Your task to perform on an android device: Open internet settings Image 0: 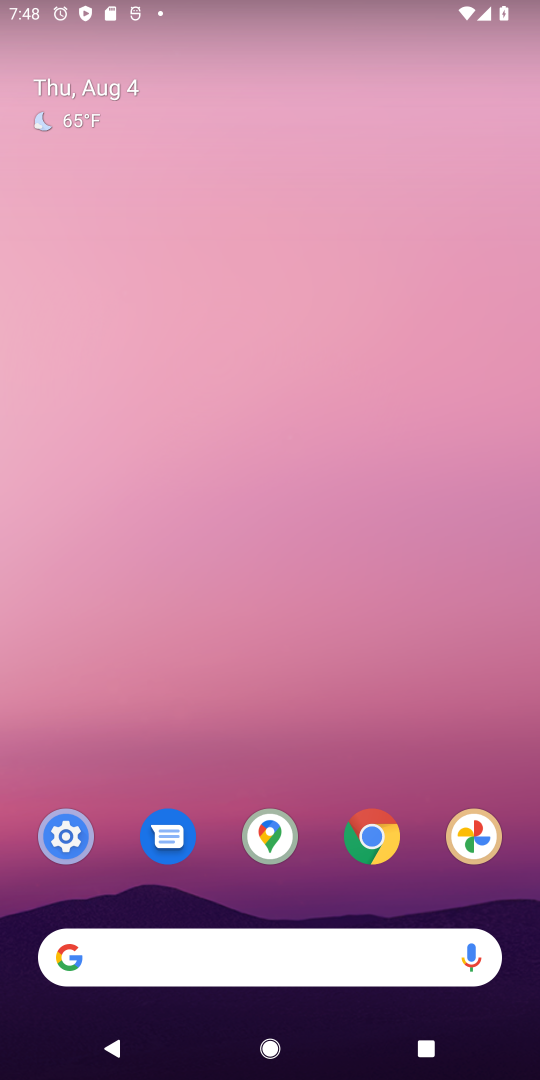
Step 0: click (49, 841)
Your task to perform on an android device: Open internet settings Image 1: 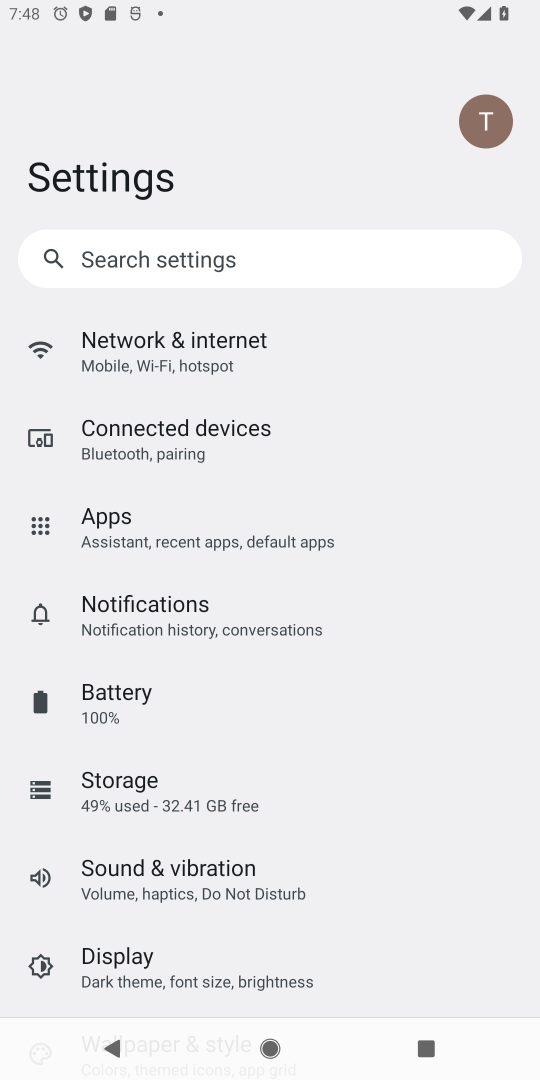
Step 1: click (250, 351)
Your task to perform on an android device: Open internet settings Image 2: 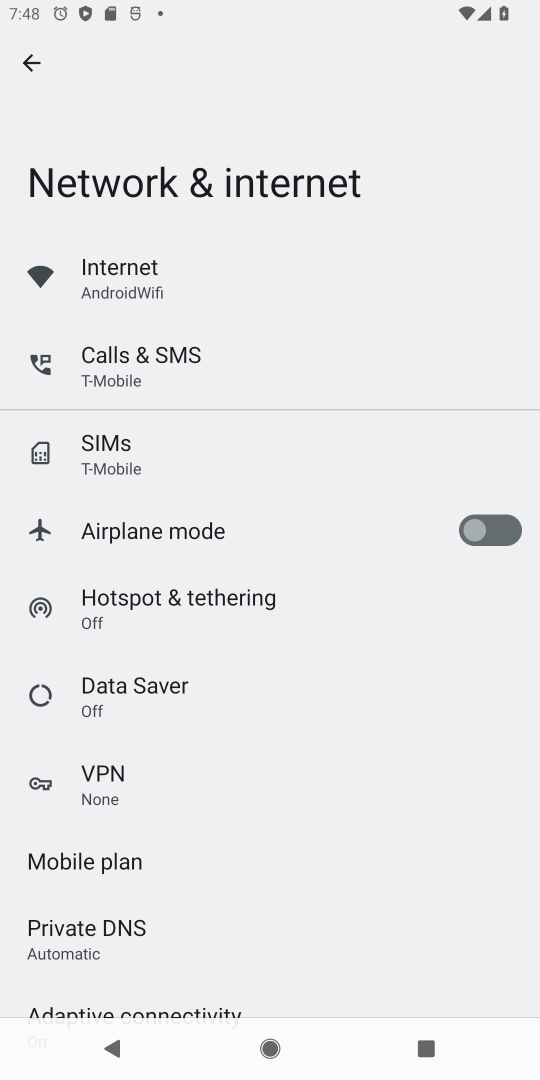
Step 2: task complete